Your task to perform on an android device: Turn off the flashlight Image 0: 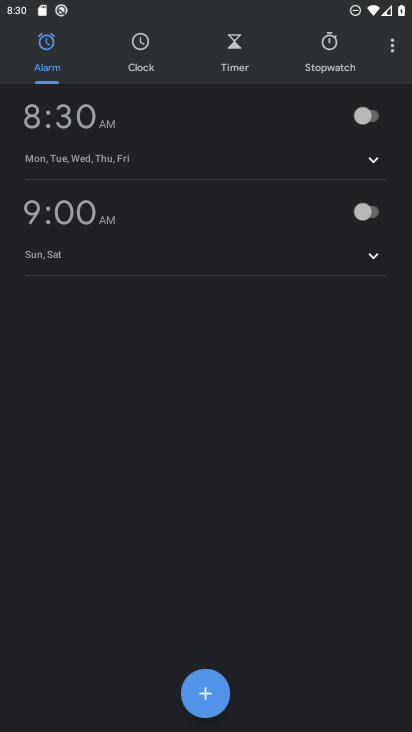
Step 0: press home button
Your task to perform on an android device: Turn off the flashlight Image 1: 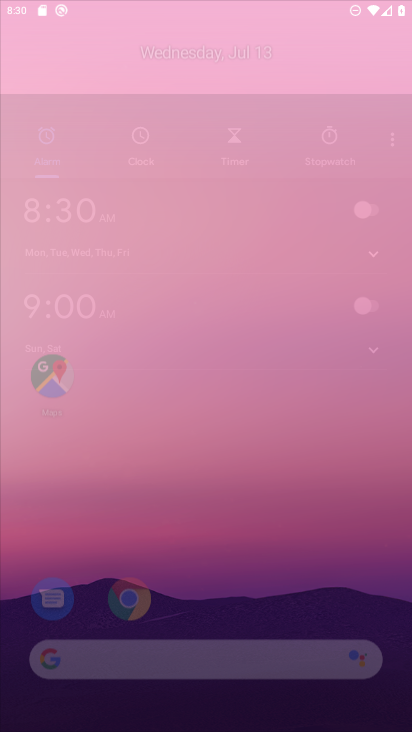
Step 1: drag from (364, 674) to (243, 43)
Your task to perform on an android device: Turn off the flashlight Image 2: 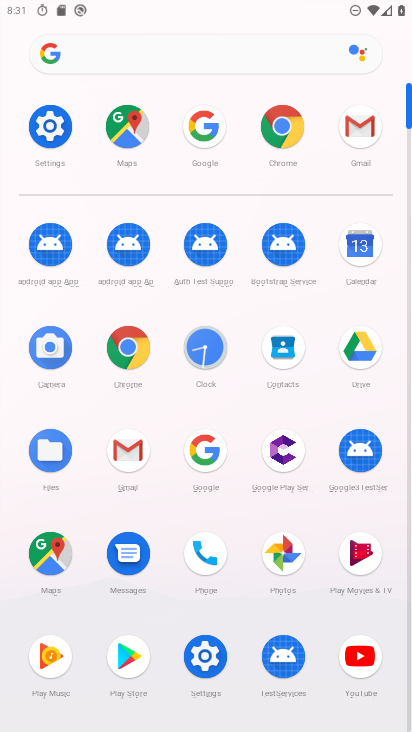
Step 2: click (62, 123)
Your task to perform on an android device: Turn off the flashlight Image 3: 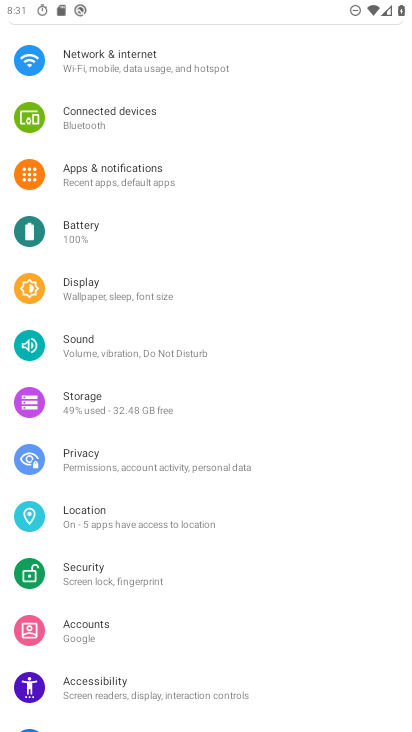
Step 3: task complete